Your task to perform on an android device: open a bookmark in the chrome app Image 0: 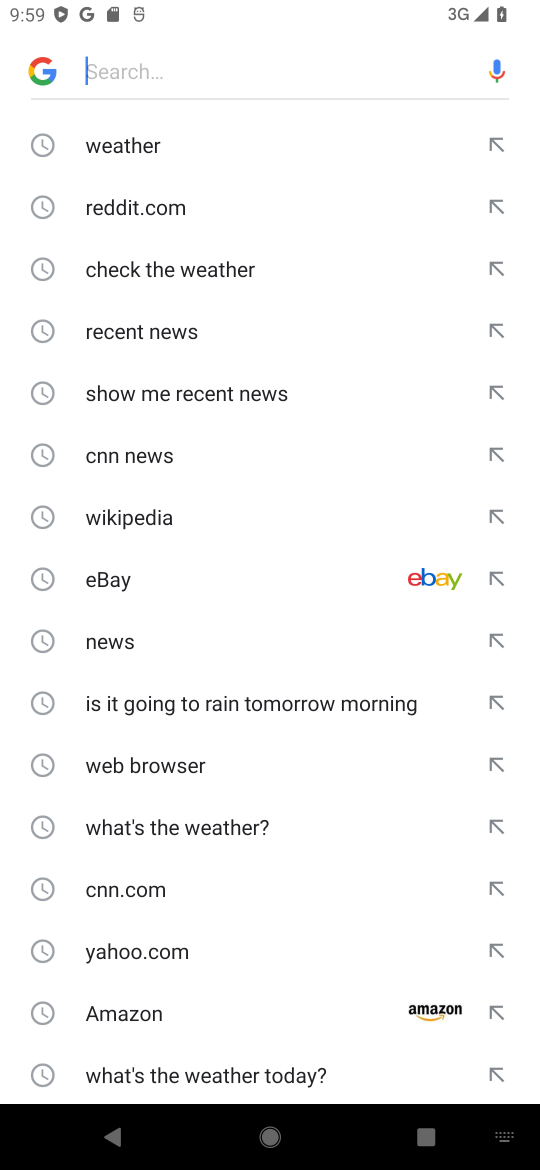
Step 0: press home button
Your task to perform on an android device: open a bookmark in the chrome app Image 1: 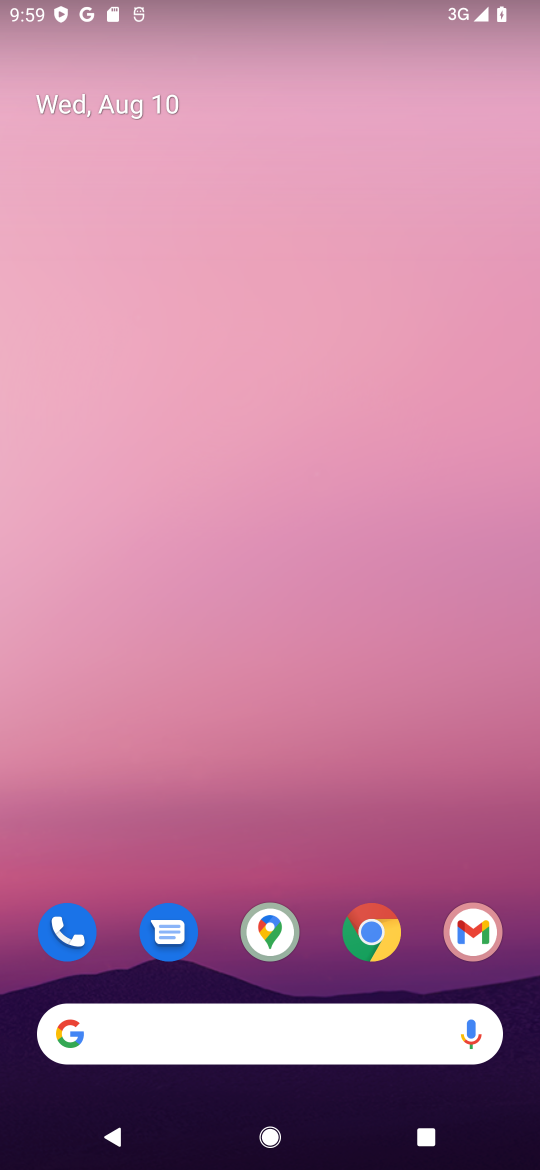
Step 1: click (372, 932)
Your task to perform on an android device: open a bookmark in the chrome app Image 2: 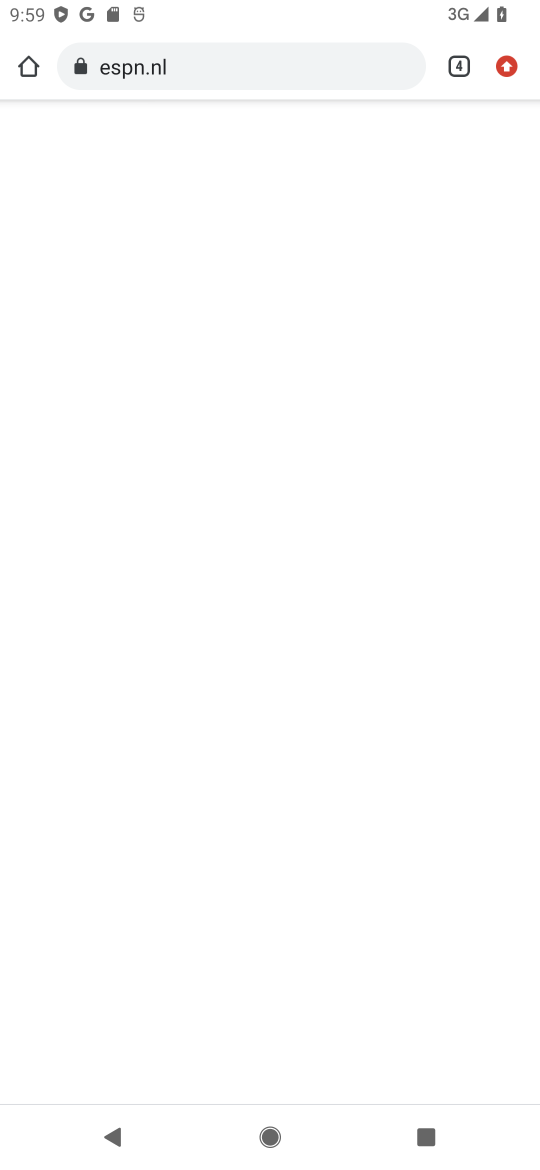
Step 2: click (504, 60)
Your task to perform on an android device: open a bookmark in the chrome app Image 3: 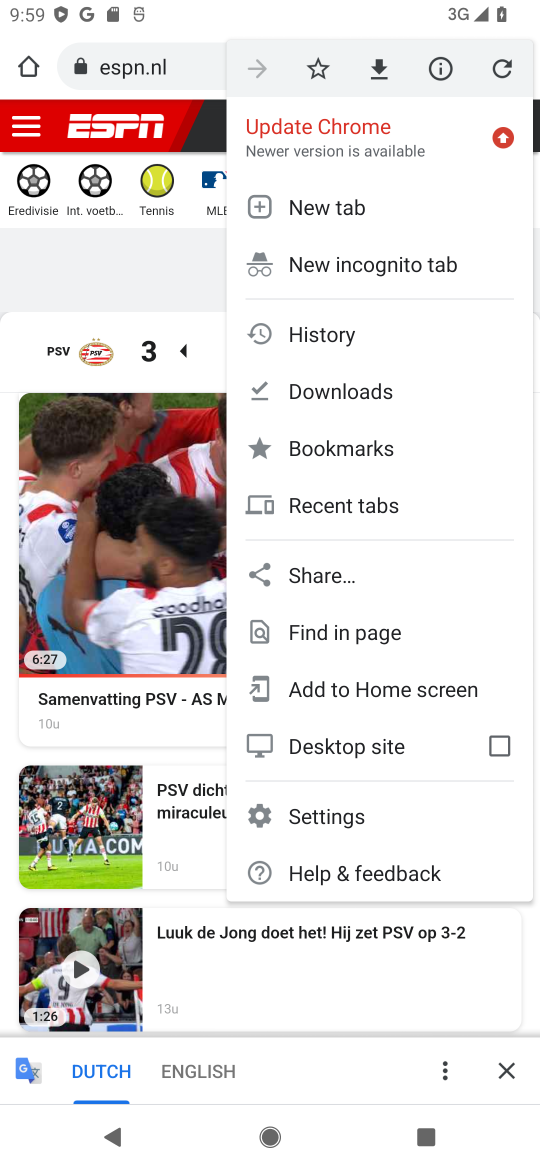
Step 3: click (341, 446)
Your task to perform on an android device: open a bookmark in the chrome app Image 4: 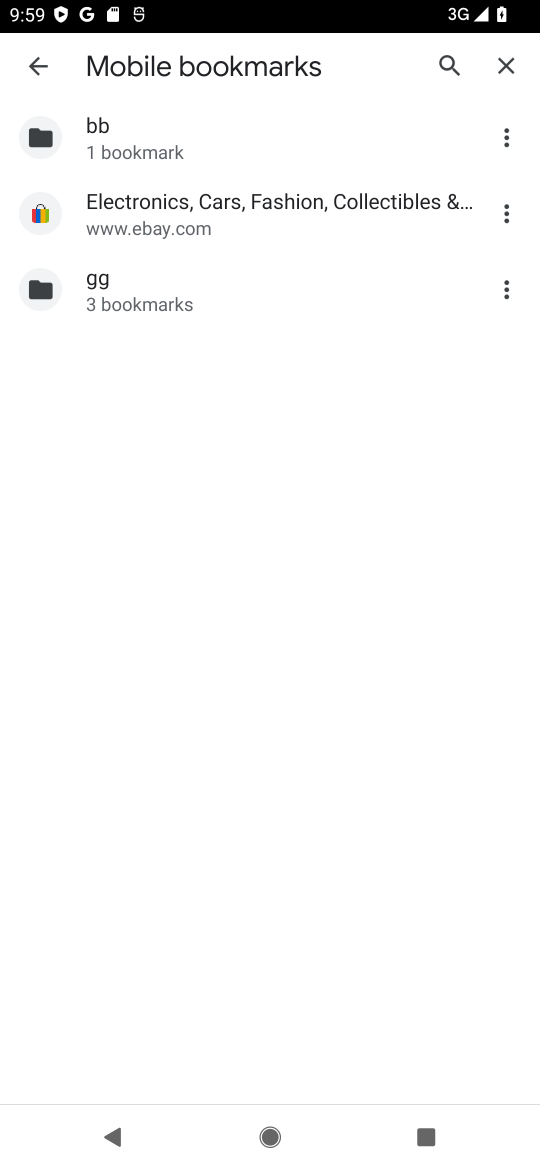
Step 4: task complete